Your task to perform on an android device: allow cookies in the chrome app Image 0: 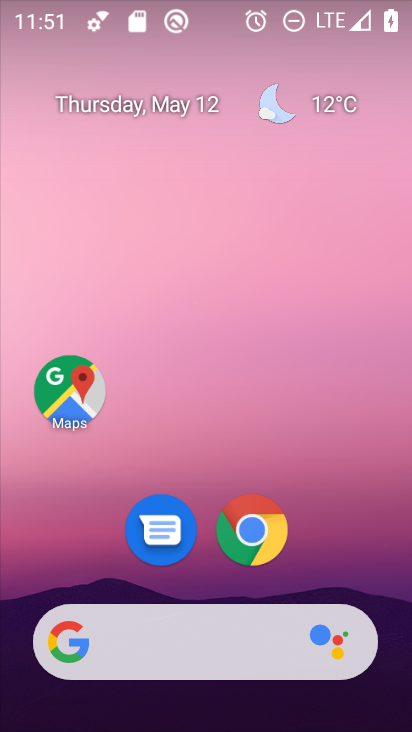
Step 0: click (243, 538)
Your task to perform on an android device: allow cookies in the chrome app Image 1: 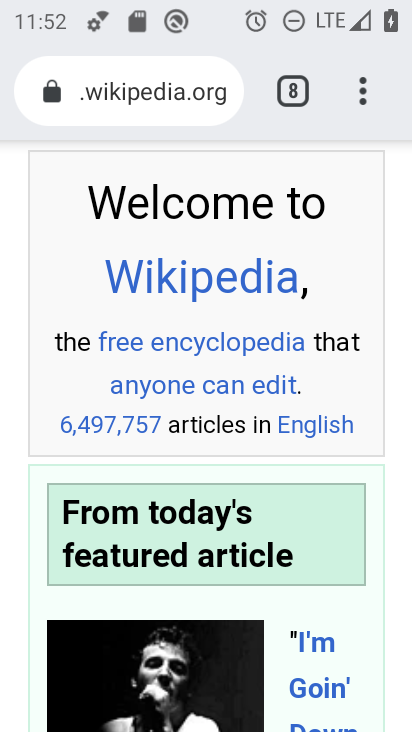
Step 1: drag from (358, 92) to (266, 558)
Your task to perform on an android device: allow cookies in the chrome app Image 2: 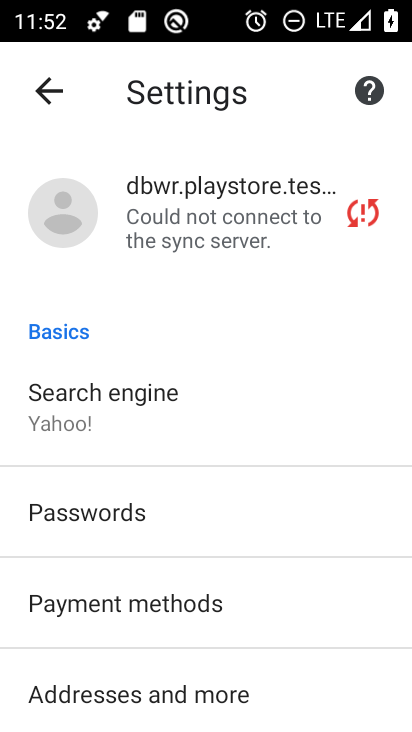
Step 2: drag from (180, 661) to (270, 347)
Your task to perform on an android device: allow cookies in the chrome app Image 3: 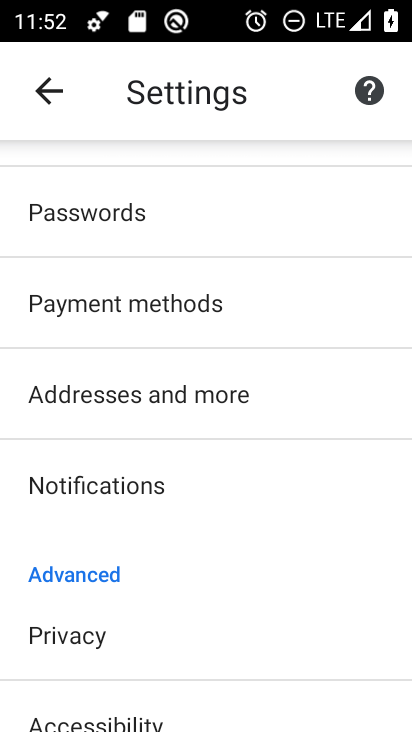
Step 3: drag from (159, 649) to (314, 219)
Your task to perform on an android device: allow cookies in the chrome app Image 4: 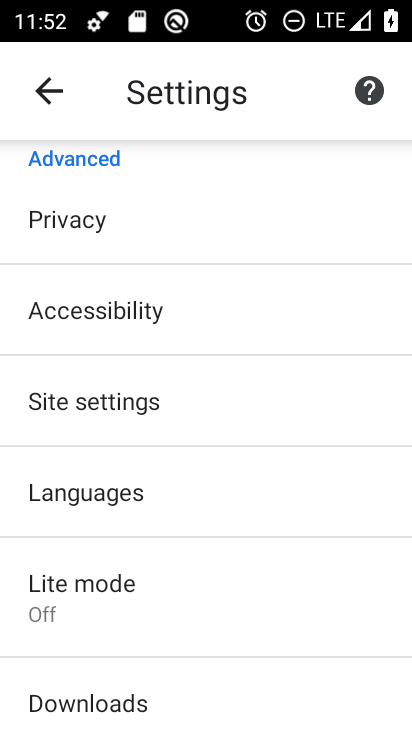
Step 4: click (128, 403)
Your task to perform on an android device: allow cookies in the chrome app Image 5: 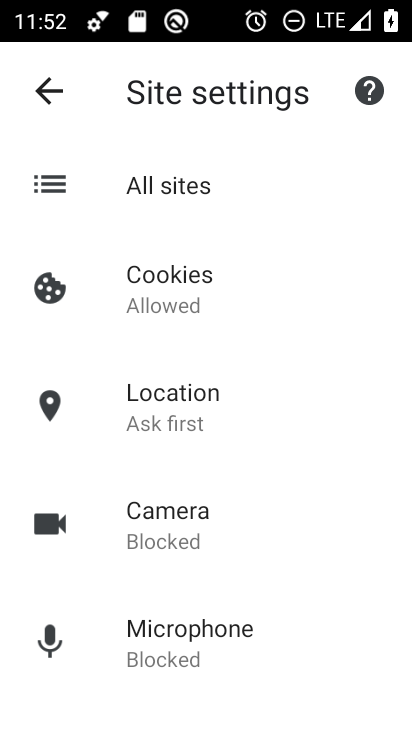
Step 5: click (177, 302)
Your task to perform on an android device: allow cookies in the chrome app Image 6: 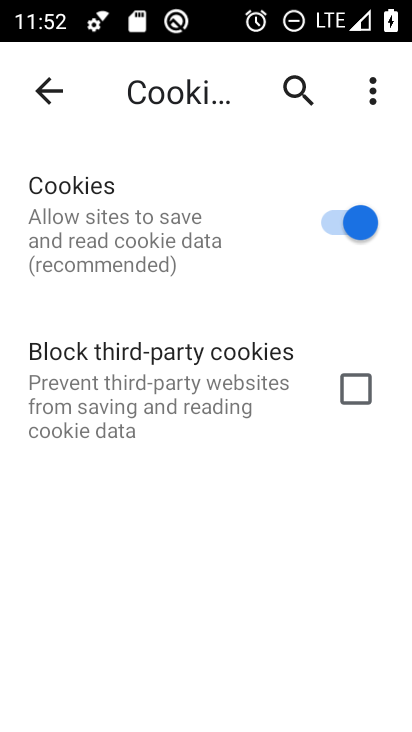
Step 6: task complete